Your task to perform on an android device: Open Yahoo.com Image 0: 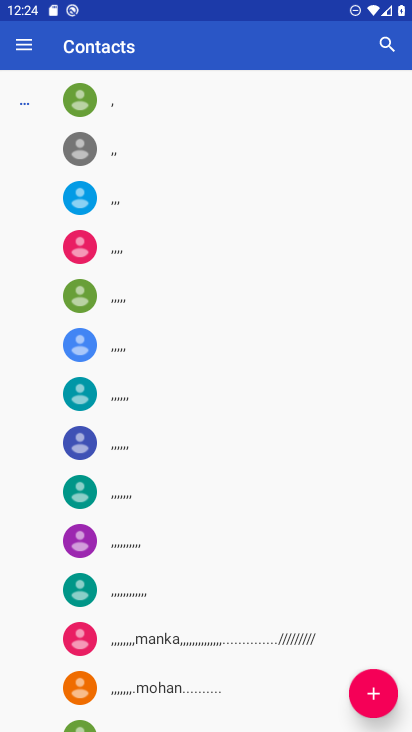
Step 0: press home button
Your task to perform on an android device: Open Yahoo.com Image 1: 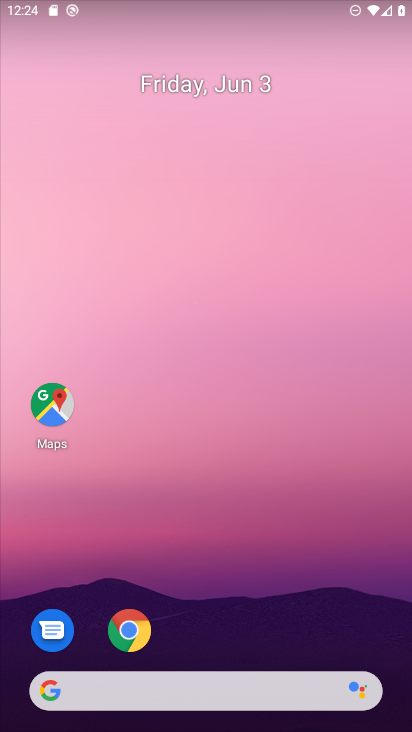
Step 1: click (138, 641)
Your task to perform on an android device: Open Yahoo.com Image 2: 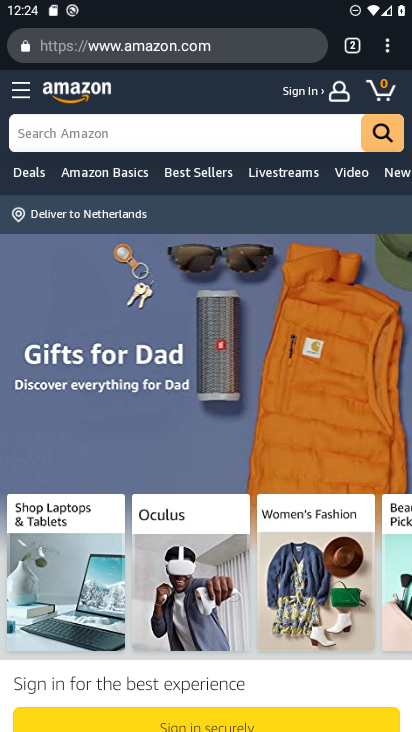
Step 2: click (349, 52)
Your task to perform on an android device: Open Yahoo.com Image 3: 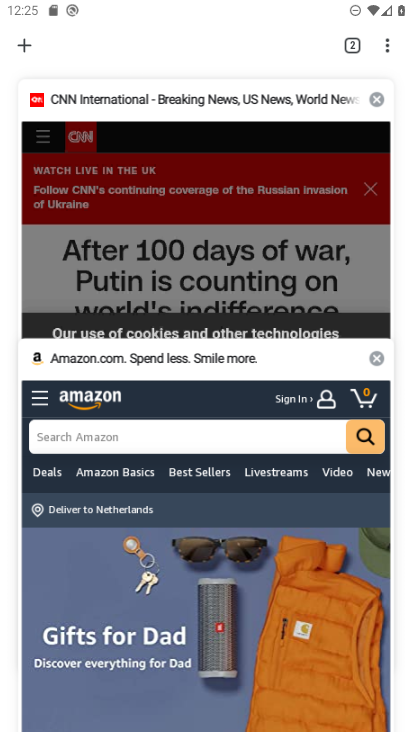
Step 3: click (18, 48)
Your task to perform on an android device: Open Yahoo.com Image 4: 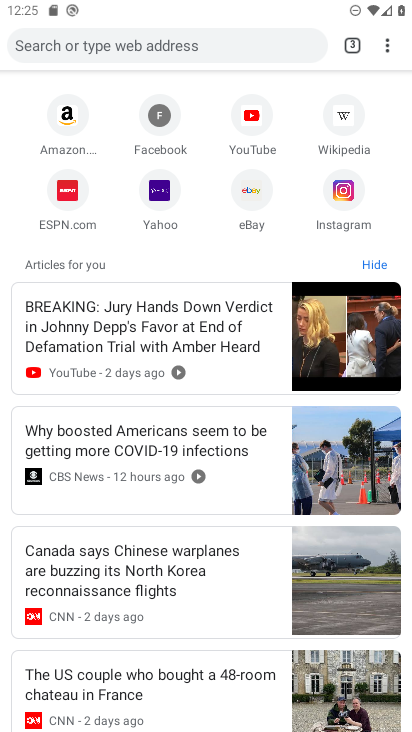
Step 4: click (157, 209)
Your task to perform on an android device: Open Yahoo.com Image 5: 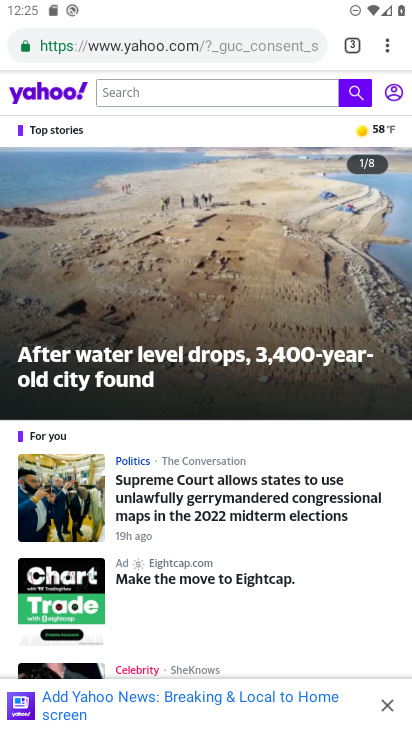
Step 5: task complete